Your task to perform on an android device: Go to notification settings Image 0: 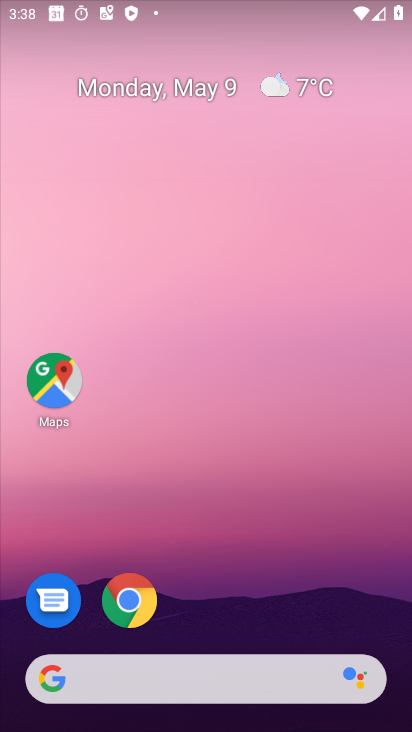
Step 0: drag from (238, 575) to (204, 155)
Your task to perform on an android device: Go to notification settings Image 1: 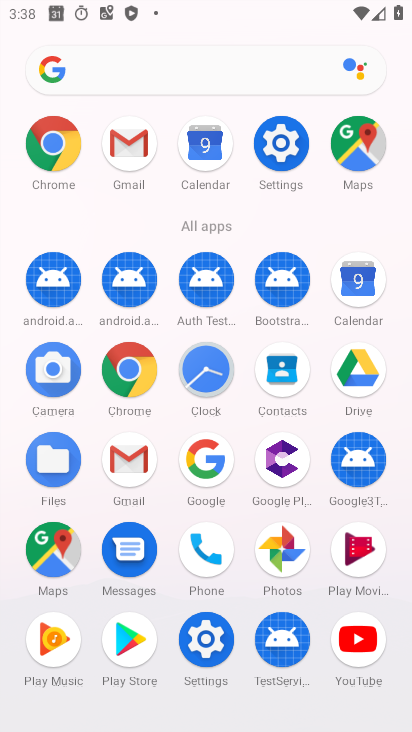
Step 1: click (213, 630)
Your task to perform on an android device: Go to notification settings Image 2: 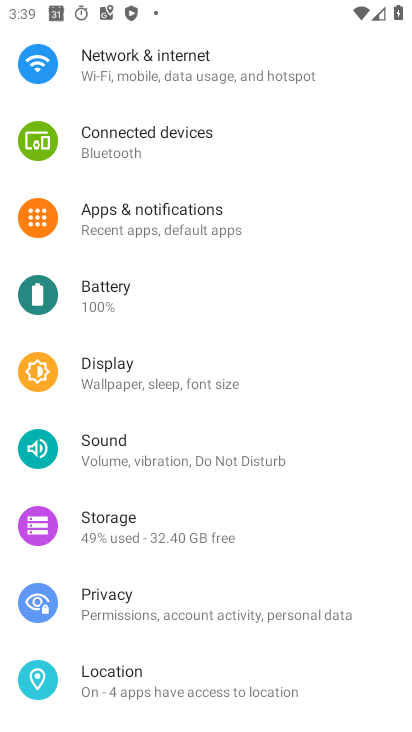
Step 2: click (115, 219)
Your task to perform on an android device: Go to notification settings Image 3: 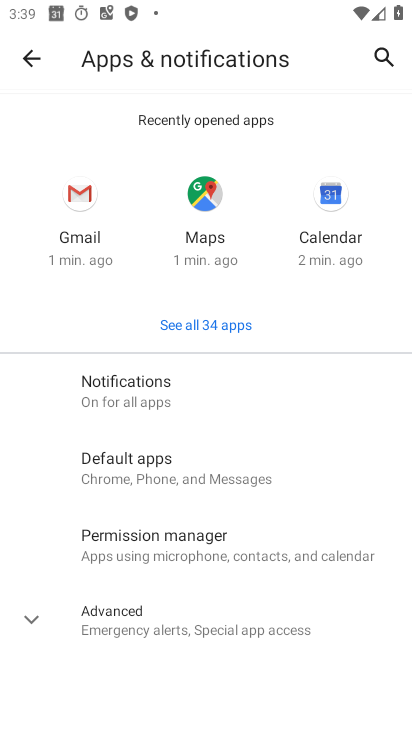
Step 3: click (166, 393)
Your task to perform on an android device: Go to notification settings Image 4: 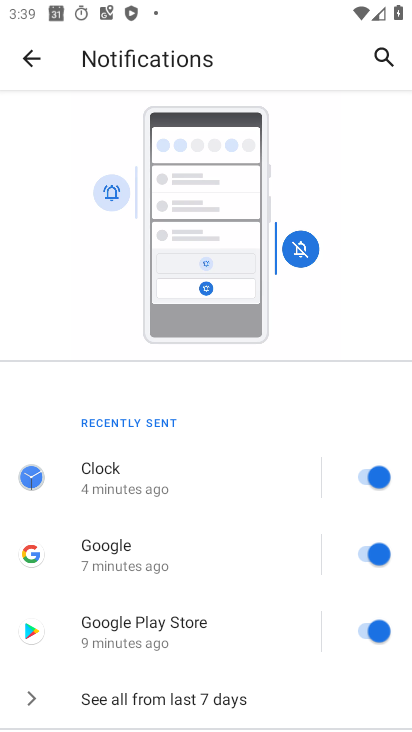
Step 4: task complete